Your task to perform on an android device: turn off location Image 0: 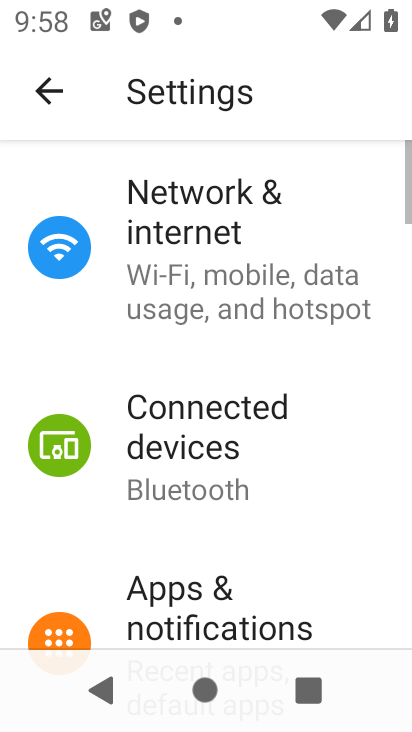
Step 0: press back button
Your task to perform on an android device: turn off location Image 1: 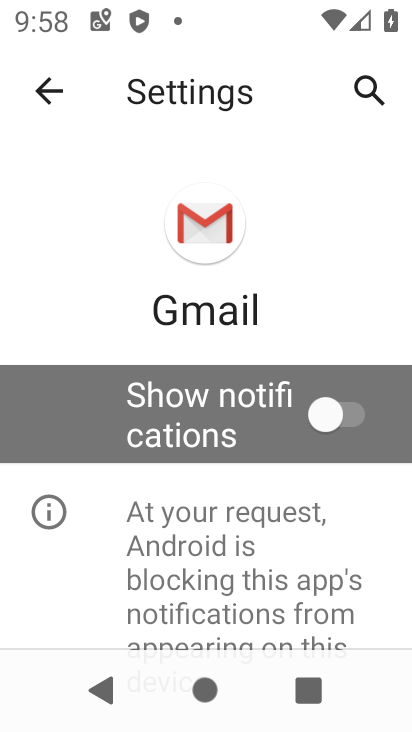
Step 1: press back button
Your task to perform on an android device: turn off location Image 2: 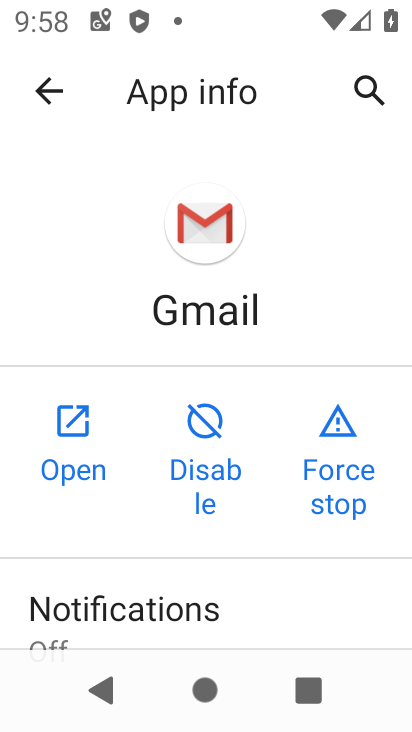
Step 2: press back button
Your task to perform on an android device: turn off location Image 3: 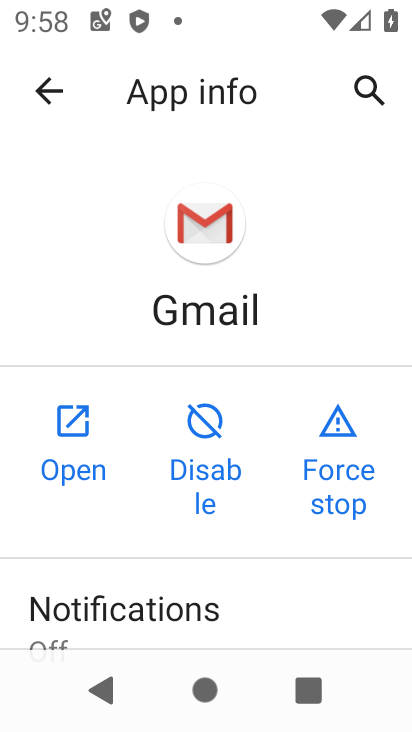
Step 3: press back button
Your task to perform on an android device: turn off location Image 4: 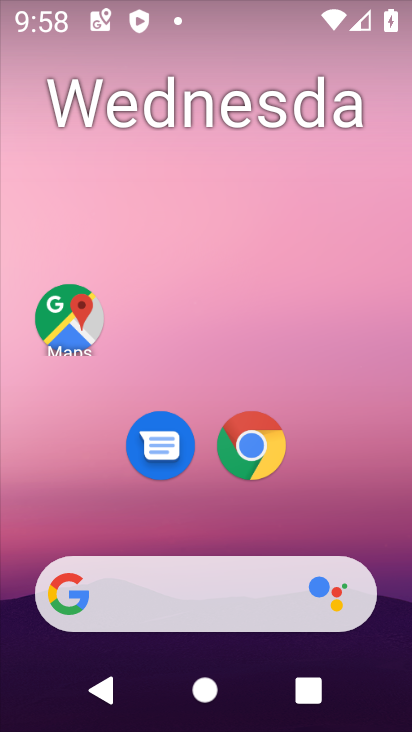
Step 4: drag from (210, 531) to (285, 11)
Your task to perform on an android device: turn off location Image 5: 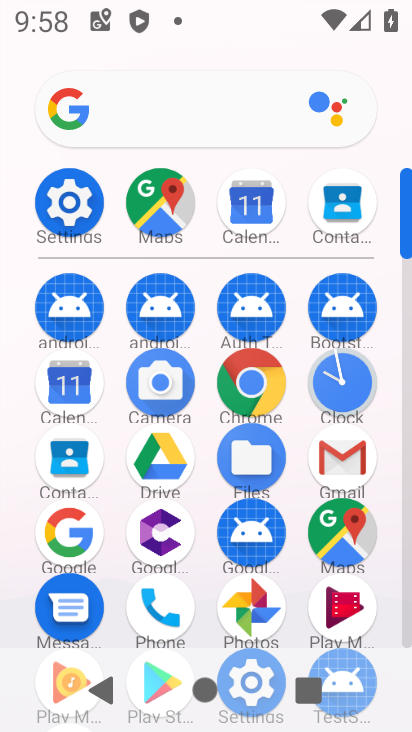
Step 5: click (74, 197)
Your task to perform on an android device: turn off location Image 6: 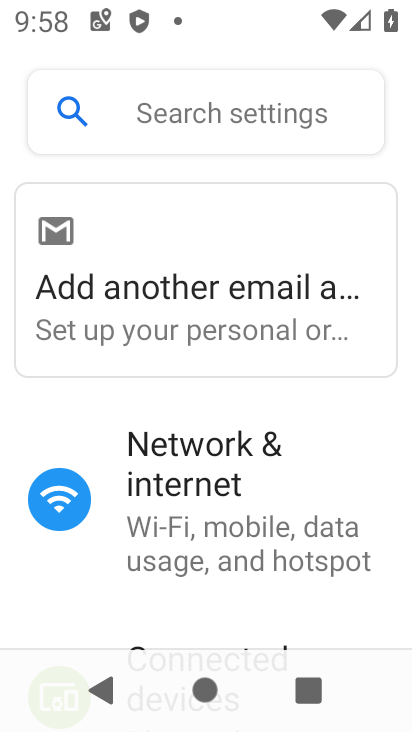
Step 6: drag from (168, 522) to (247, 36)
Your task to perform on an android device: turn off location Image 7: 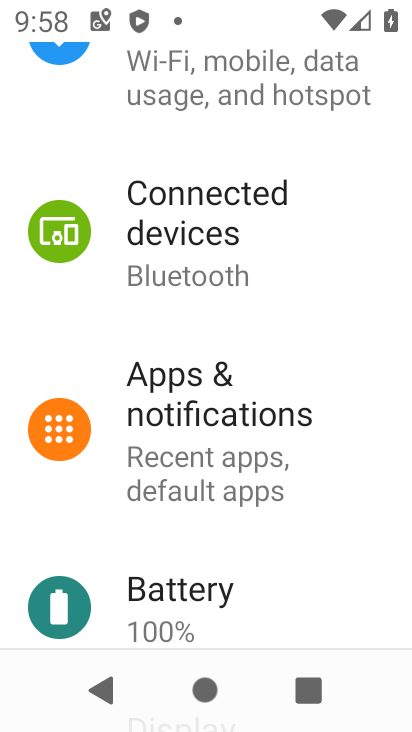
Step 7: drag from (210, 559) to (274, 142)
Your task to perform on an android device: turn off location Image 8: 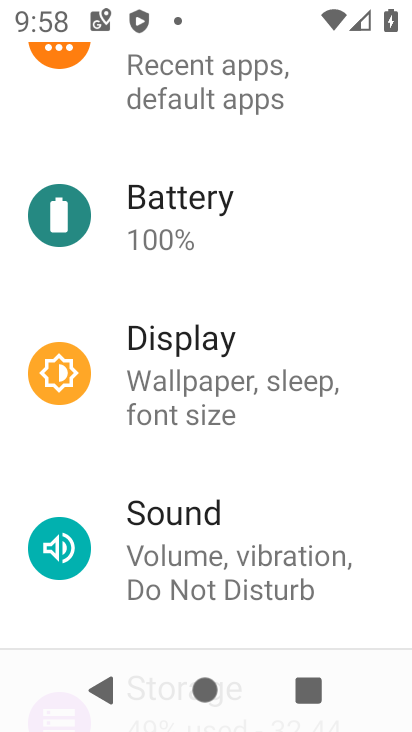
Step 8: drag from (197, 566) to (262, 84)
Your task to perform on an android device: turn off location Image 9: 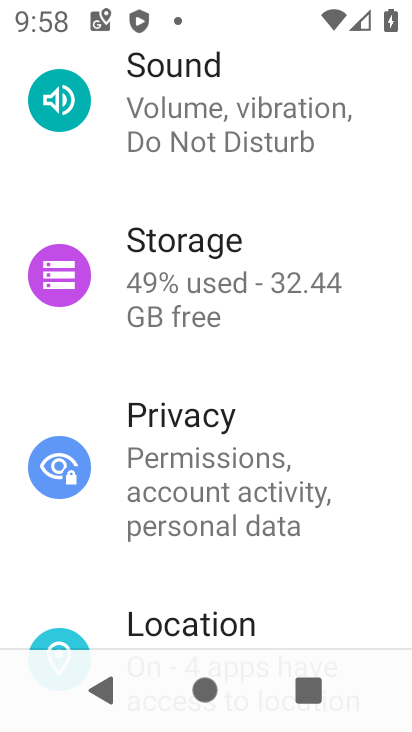
Step 9: click (188, 616)
Your task to perform on an android device: turn off location Image 10: 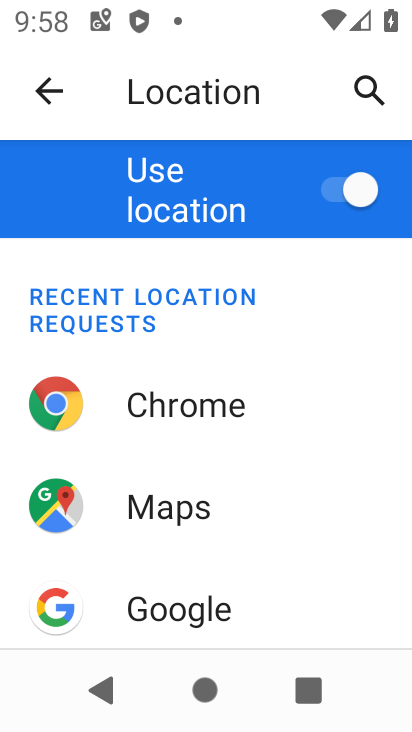
Step 10: click (346, 181)
Your task to perform on an android device: turn off location Image 11: 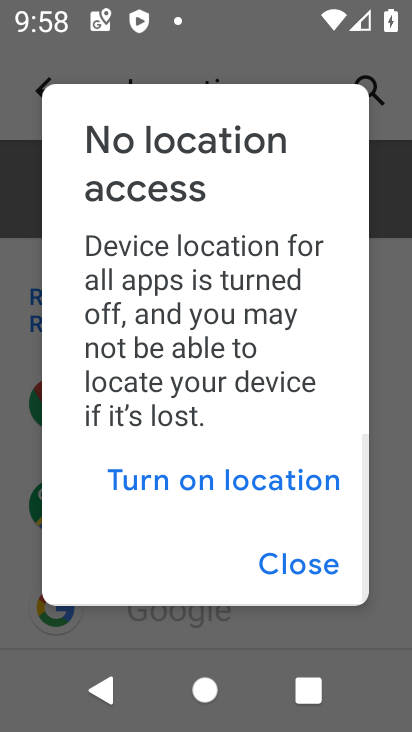
Step 11: task complete